Your task to perform on an android device: Go to wifi settings Image 0: 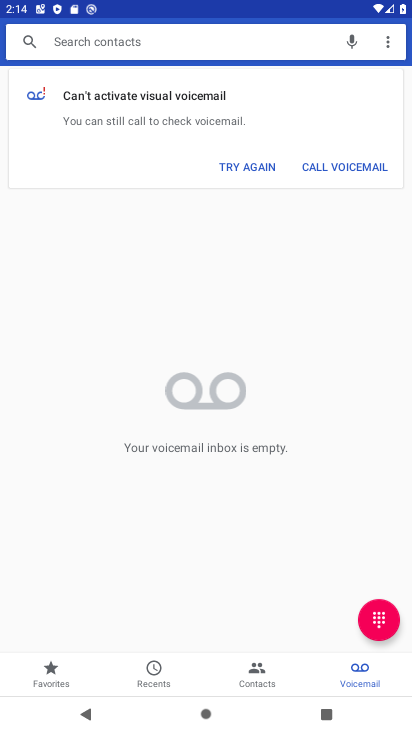
Step 0: press home button
Your task to perform on an android device: Go to wifi settings Image 1: 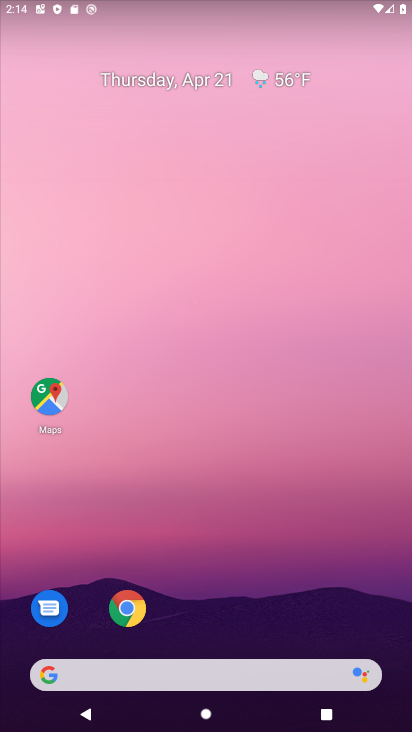
Step 1: drag from (236, 462) to (231, 2)
Your task to perform on an android device: Go to wifi settings Image 2: 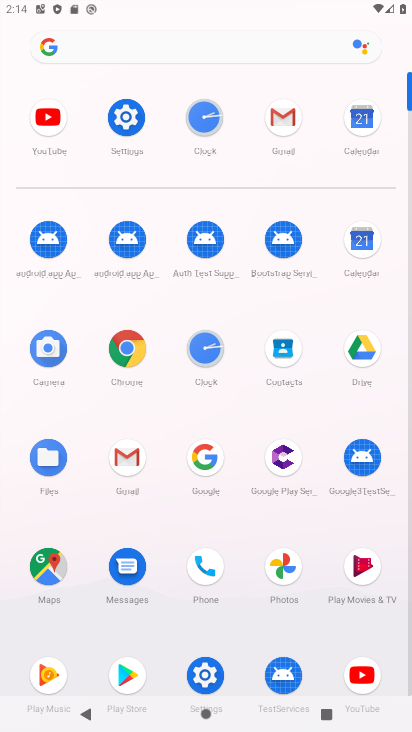
Step 2: click (128, 112)
Your task to perform on an android device: Go to wifi settings Image 3: 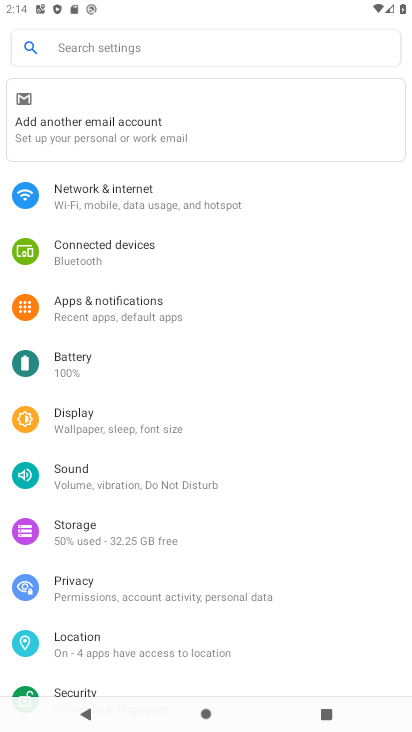
Step 3: click (138, 206)
Your task to perform on an android device: Go to wifi settings Image 4: 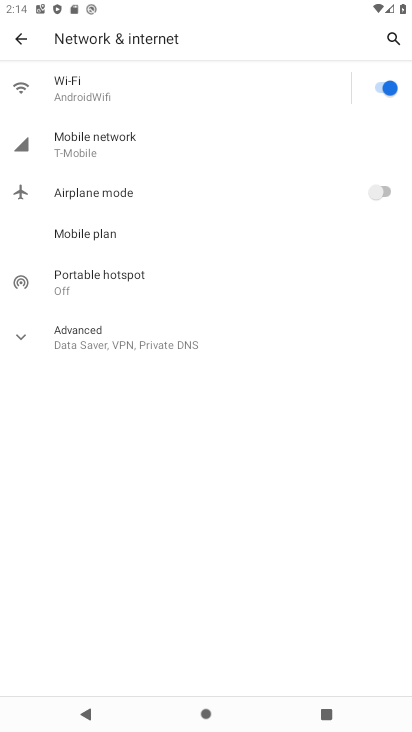
Step 4: click (81, 89)
Your task to perform on an android device: Go to wifi settings Image 5: 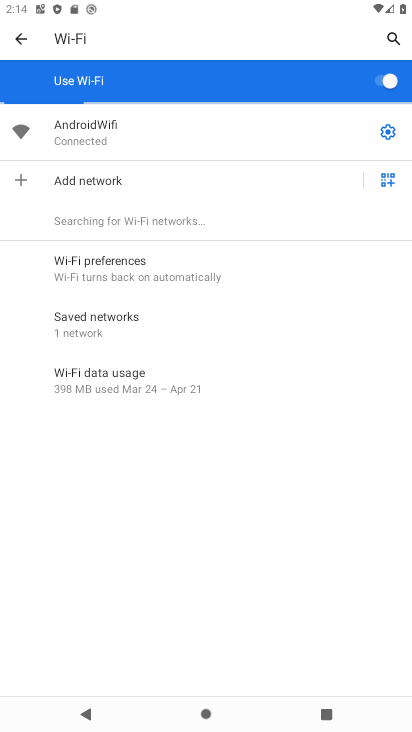
Step 5: task complete